Your task to perform on an android device: change text size in settings app Image 0: 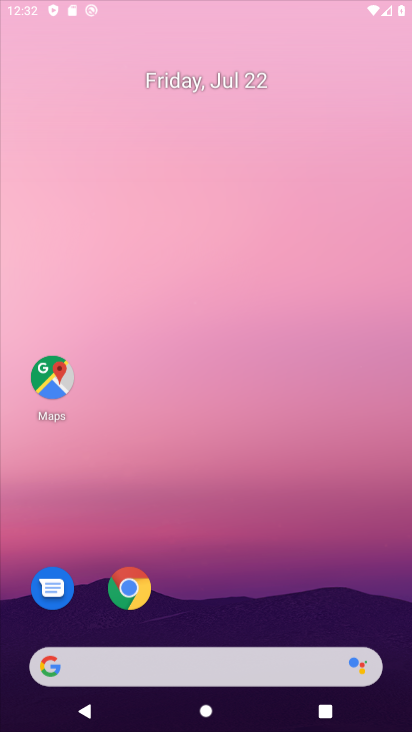
Step 0: press home button
Your task to perform on an android device: change text size in settings app Image 1: 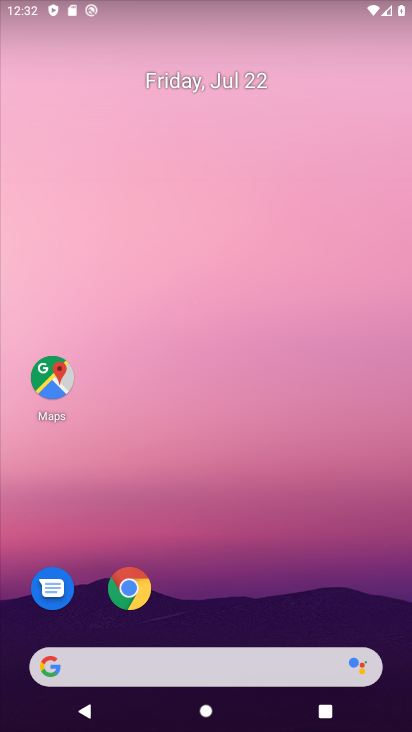
Step 1: drag from (102, 630) to (68, 20)
Your task to perform on an android device: change text size in settings app Image 2: 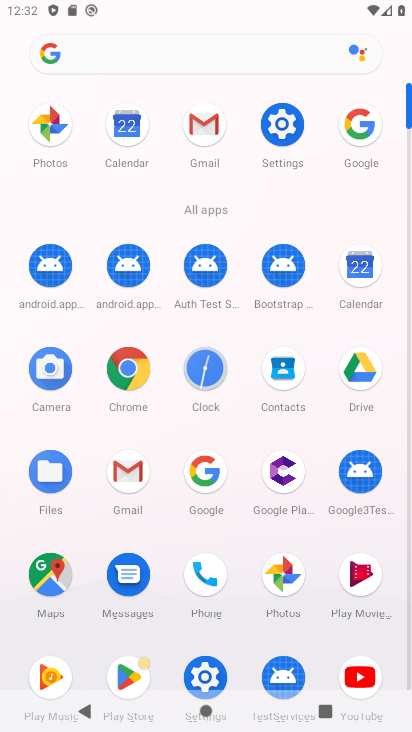
Step 2: click (287, 126)
Your task to perform on an android device: change text size in settings app Image 3: 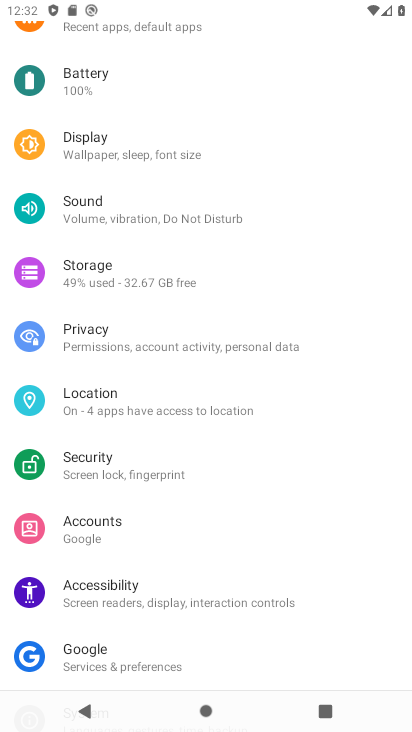
Step 3: click (103, 154)
Your task to perform on an android device: change text size in settings app Image 4: 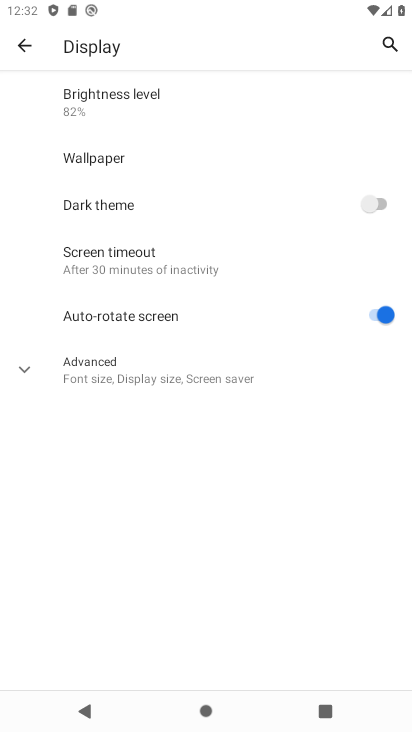
Step 4: click (97, 378)
Your task to perform on an android device: change text size in settings app Image 5: 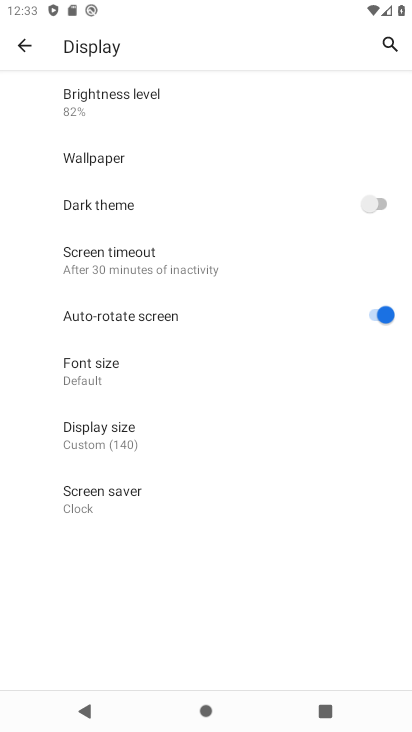
Step 5: click (116, 375)
Your task to perform on an android device: change text size in settings app Image 6: 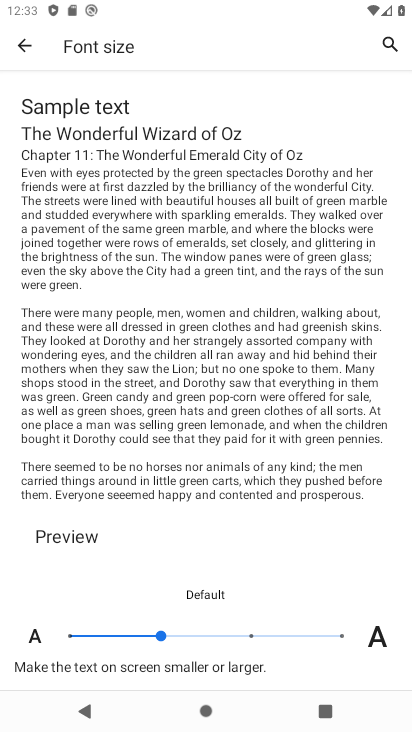
Step 6: click (243, 622)
Your task to perform on an android device: change text size in settings app Image 7: 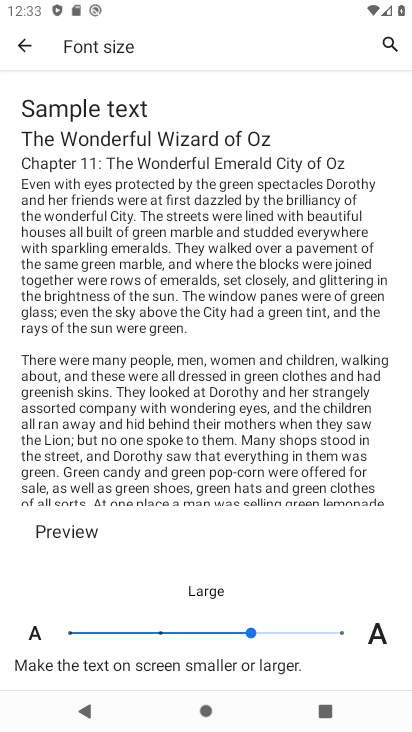
Step 7: task complete